Your task to perform on an android device: turn notification dots on Image 0: 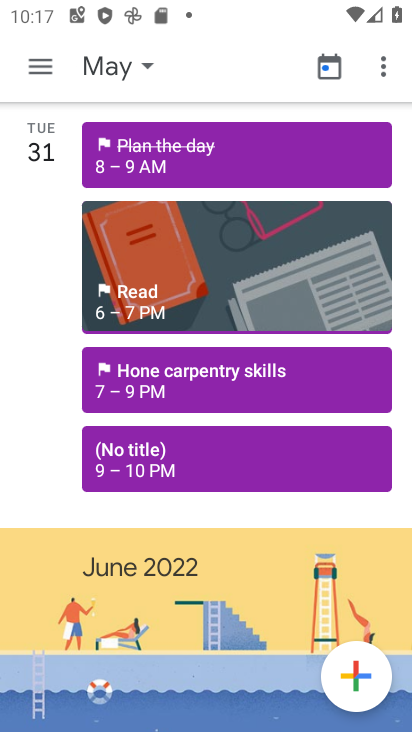
Step 0: drag from (254, 531) to (300, 35)
Your task to perform on an android device: turn notification dots on Image 1: 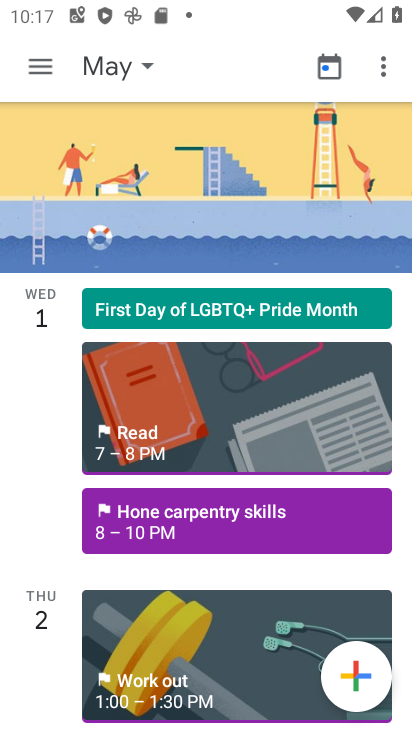
Step 1: press home button
Your task to perform on an android device: turn notification dots on Image 2: 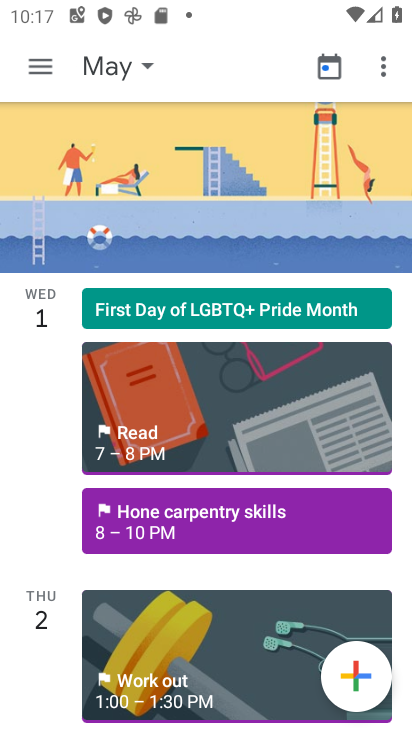
Step 2: drag from (204, 546) to (277, 58)
Your task to perform on an android device: turn notification dots on Image 3: 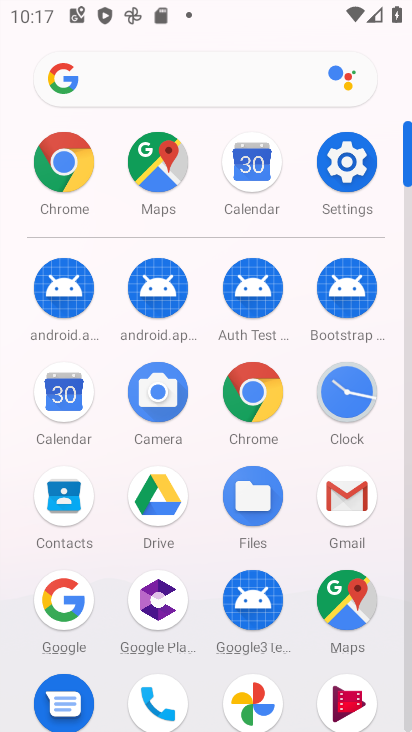
Step 3: click (355, 165)
Your task to perform on an android device: turn notification dots on Image 4: 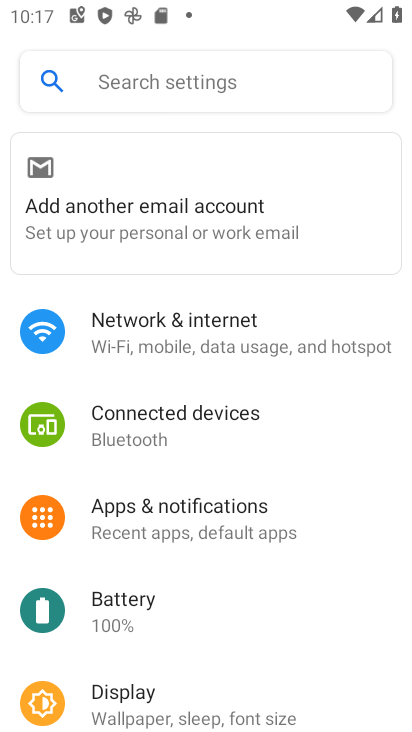
Step 4: click (203, 510)
Your task to perform on an android device: turn notification dots on Image 5: 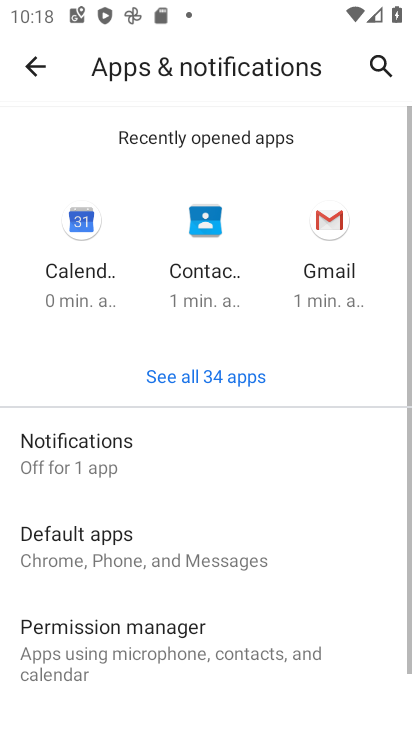
Step 5: click (115, 456)
Your task to perform on an android device: turn notification dots on Image 6: 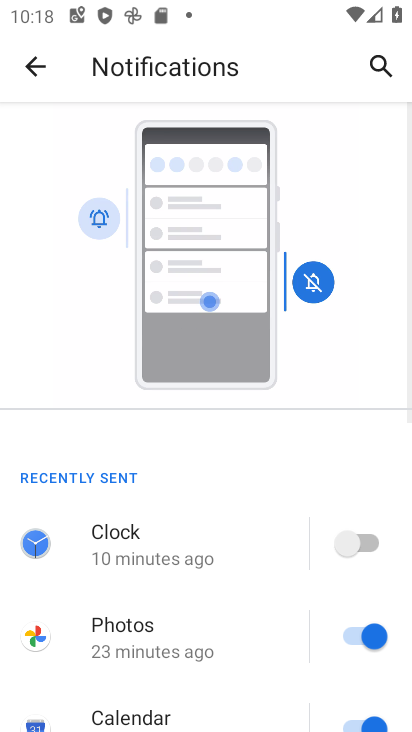
Step 6: drag from (219, 581) to (282, 55)
Your task to perform on an android device: turn notification dots on Image 7: 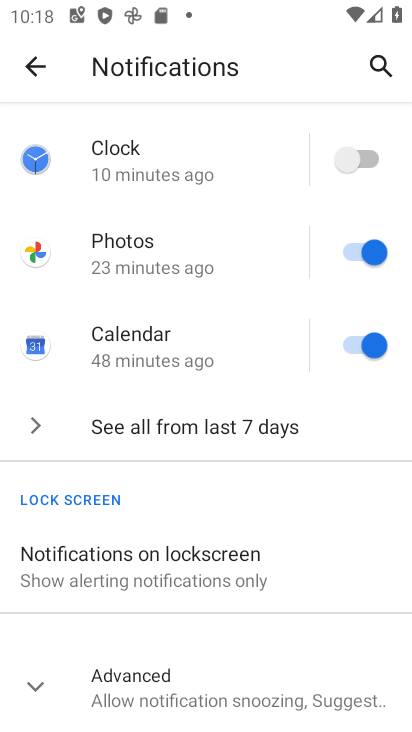
Step 7: click (153, 677)
Your task to perform on an android device: turn notification dots on Image 8: 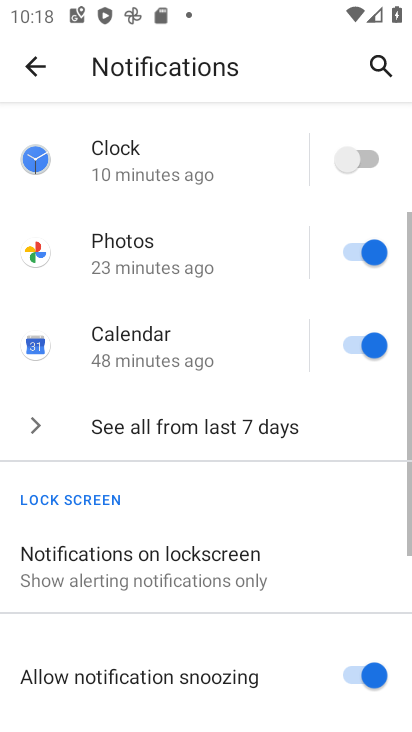
Step 8: drag from (173, 648) to (233, 71)
Your task to perform on an android device: turn notification dots on Image 9: 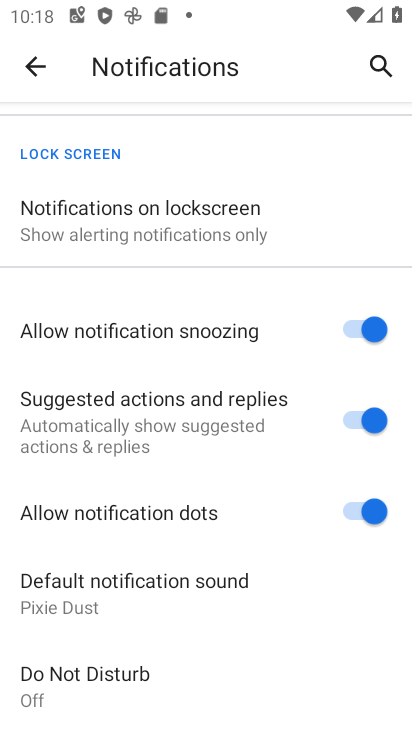
Step 9: click (355, 504)
Your task to perform on an android device: turn notification dots on Image 10: 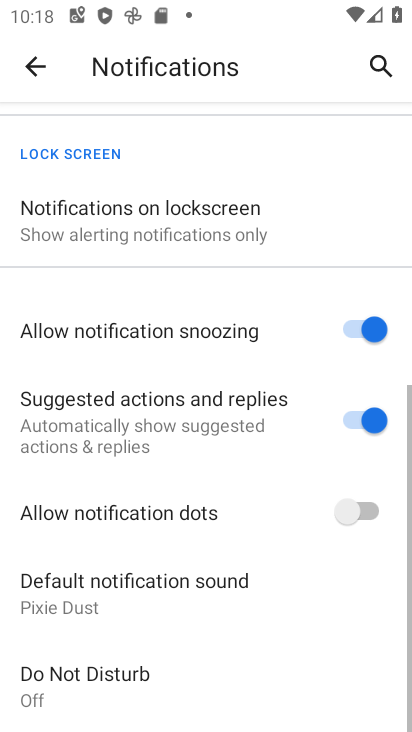
Step 10: click (356, 504)
Your task to perform on an android device: turn notification dots on Image 11: 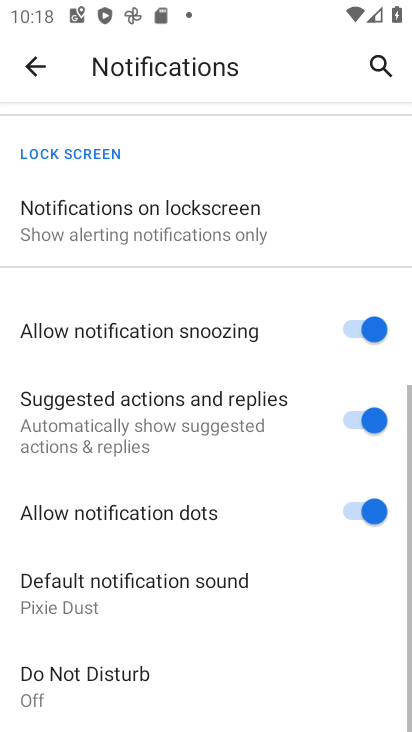
Step 11: task complete